Your task to perform on an android device: turn off location Image 0: 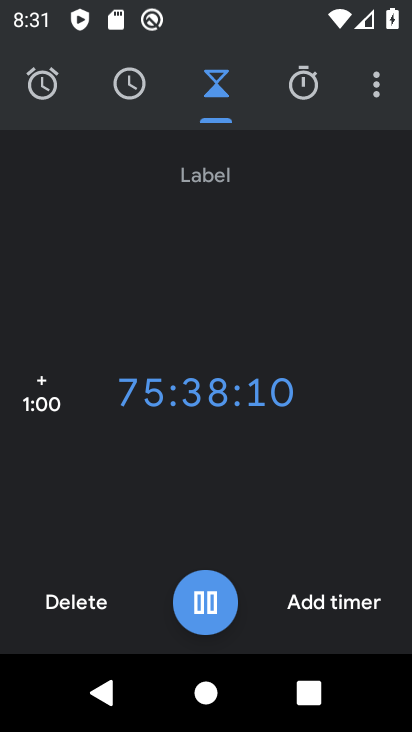
Step 0: press home button
Your task to perform on an android device: turn off location Image 1: 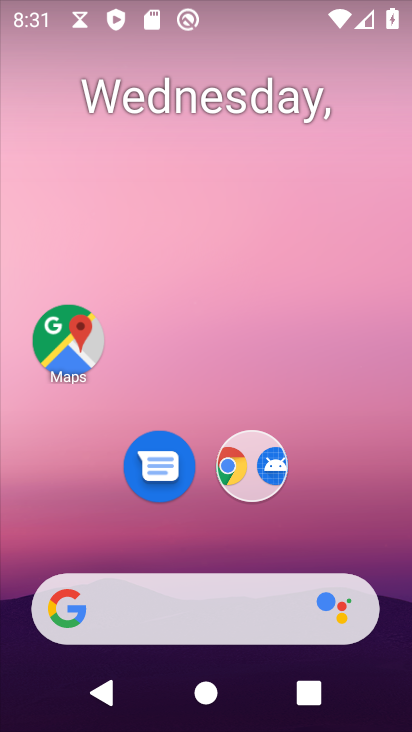
Step 1: drag from (83, 517) to (183, 60)
Your task to perform on an android device: turn off location Image 2: 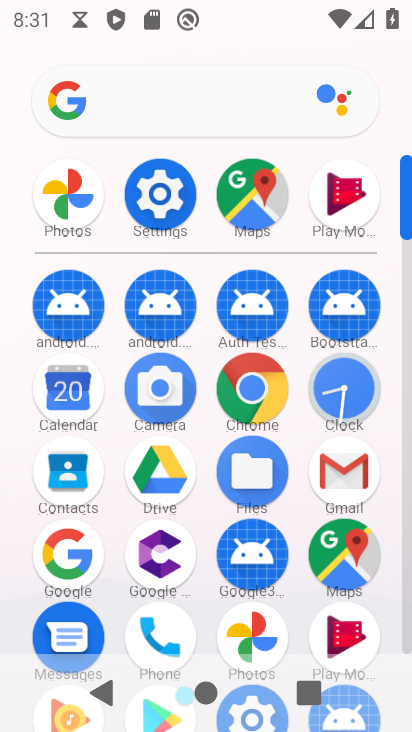
Step 2: click (174, 198)
Your task to perform on an android device: turn off location Image 3: 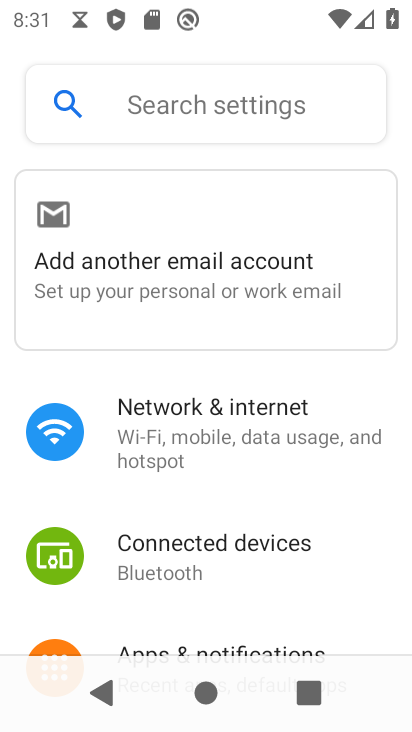
Step 3: drag from (258, 462) to (286, 201)
Your task to perform on an android device: turn off location Image 4: 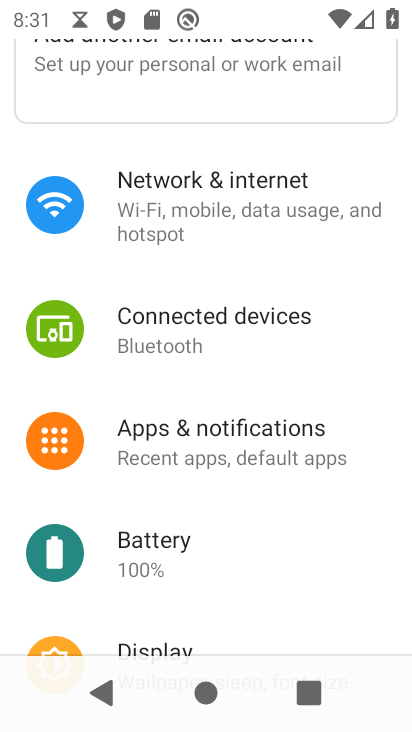
Step 4: drag from (306, 450) to (331, 243)
Your task to perform on an android device: turn off location Image 5: 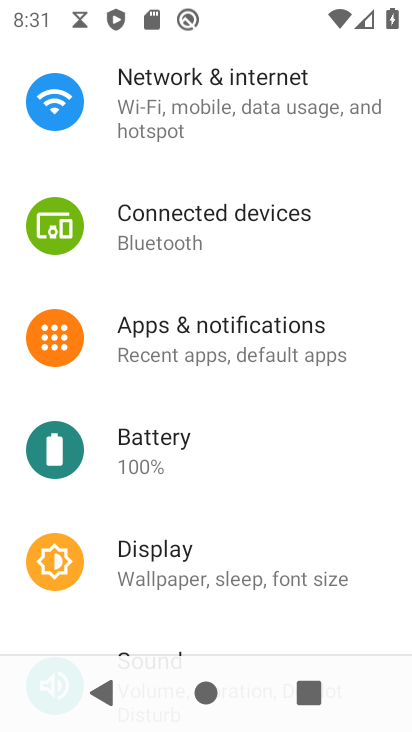
Step 5: drag from (307, 472) to (306, 336)
Your task to perform on an android device: turn off location Image 6: 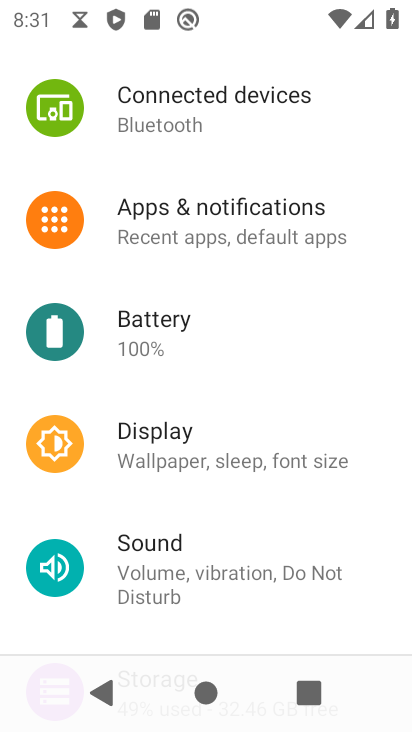
Step 6: drag from (261, 481) to (272, 409)
Your task to perform on an android device: turn off location Image 7: 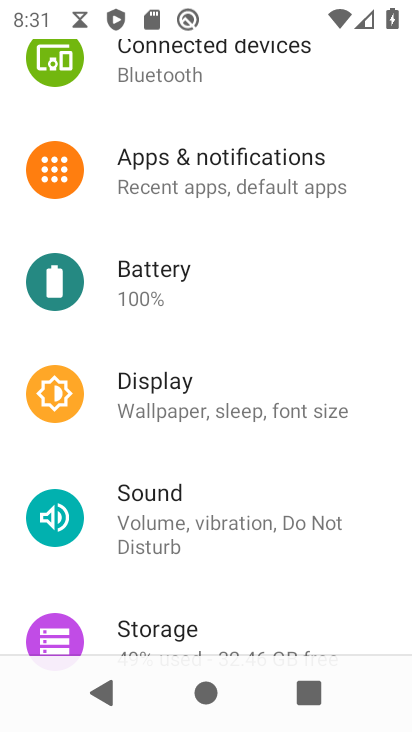
Step 7: drag from (230, 492) to (259, 410)
Your task to perform on an android device: turn off location Image 8: 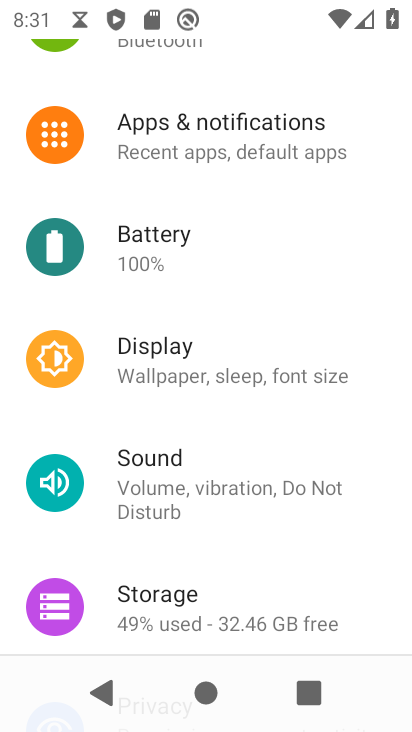
Step 8: drag from (215, 504) to (240, 405)
Your task to perform on an android device: turn off location Image 9: 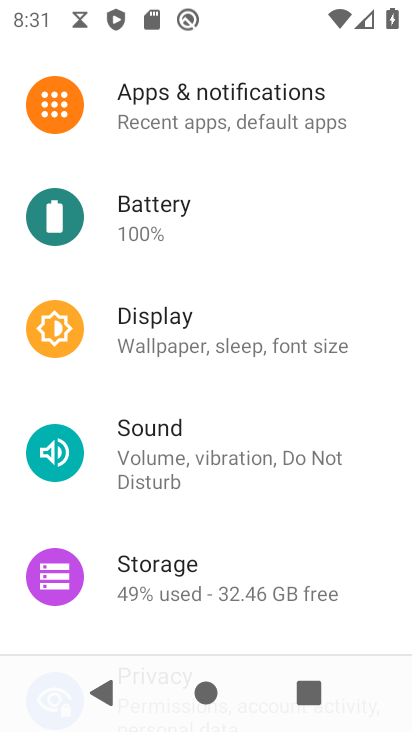
Step 9: drag from (208, 477) to (243, 394)
Your task to perform on an android device: turn off location Image 10: 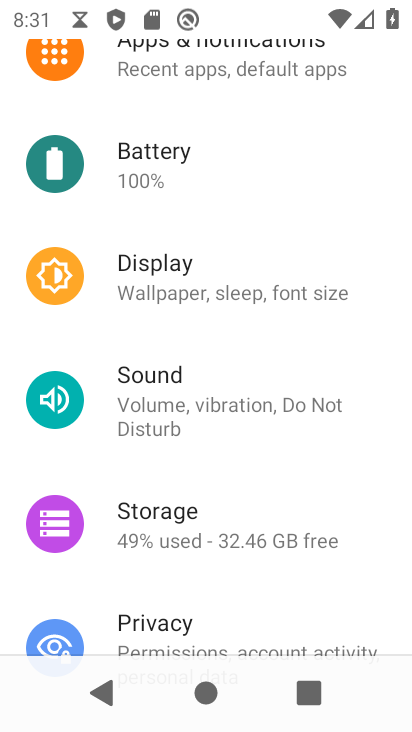
Step 10: drag from (159, 476) to (209, 334)
Your task to perform on an android device: turn off location Image 11: 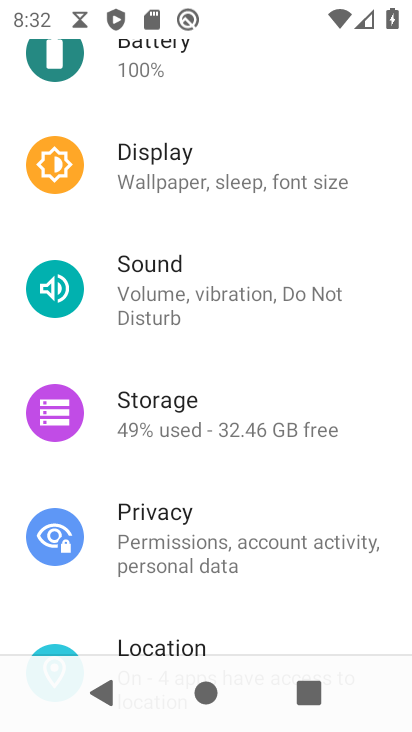
Step 11: drag from (132, 472) to (257, 305)
Your task to perform on an android device: turn off location Image 12: 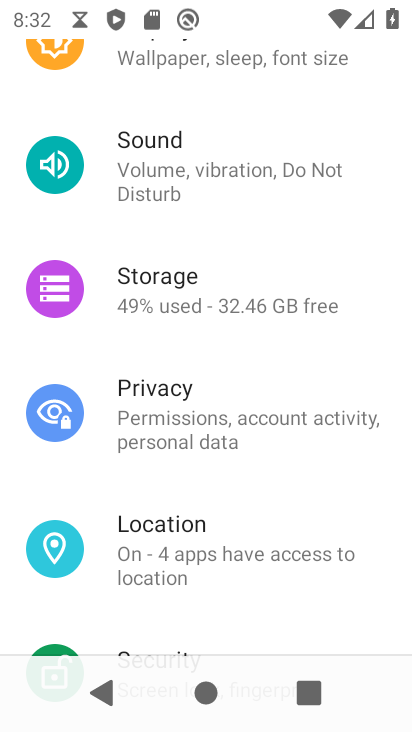
Step 12: click (165, 512)
Your task to perform on an android device: turn off location Image 13: 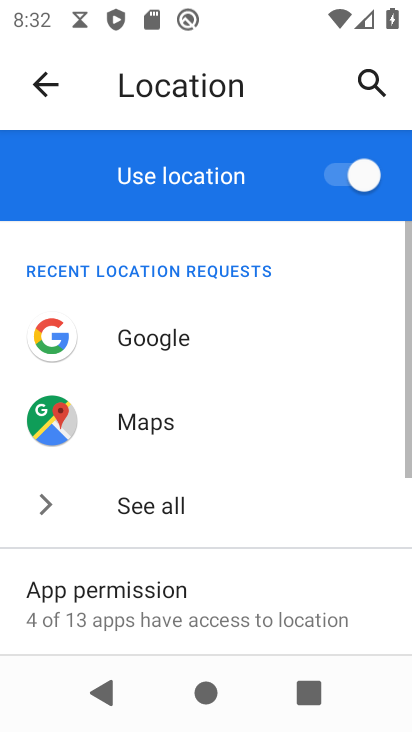
Step 13: click (334, 182)
Your task to perform on an android device: turn off location Image 14: 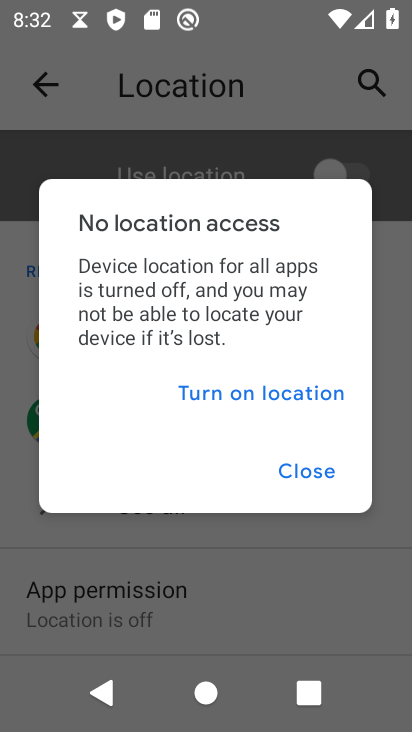
Step 14: task complete